Your task to perform on an android device: see sites visited before in the chrome app Image 0: 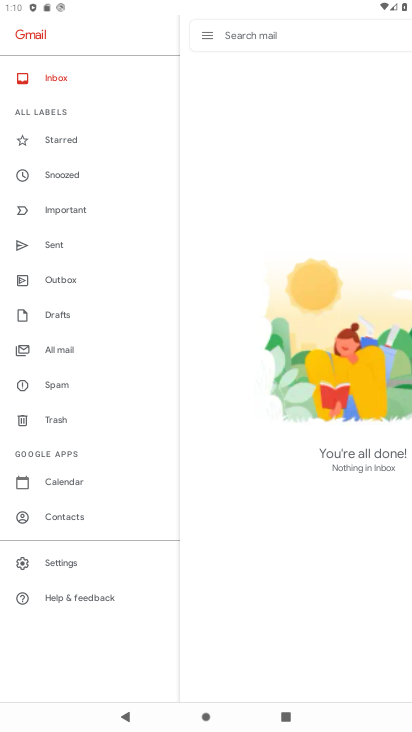
Step 0: press home button
Your task to perform on an android device: see sites visited before in the chrome app Image 1: 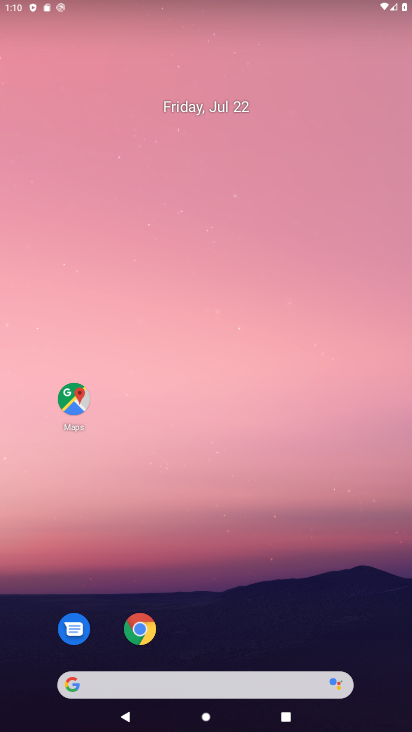
Step 1: drag from (259, 602) to (241, 51)
Your task to perform on an android device: see sites visited before in the chrome app Image 2: 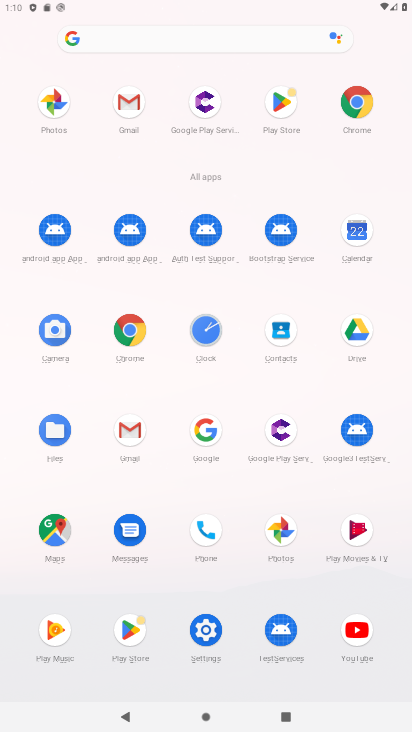
Step 2: click (124, 344)
Your task to perform on an android device: see sites visited before in the chrome app Image 3: 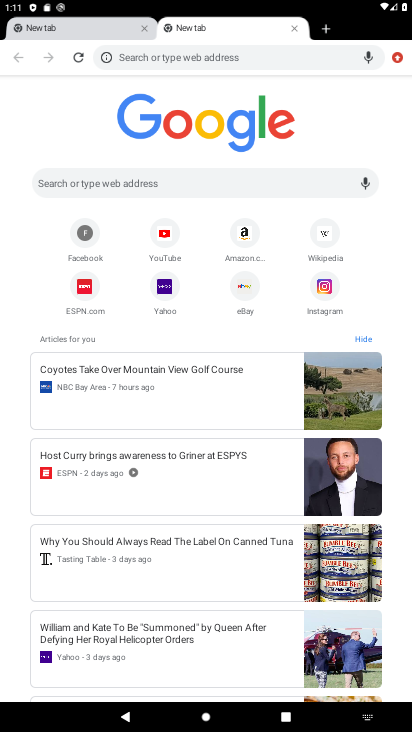
Step 3: click (403, 57)
Your task to perform on an android device: see sites visited before in the chrome app Image 4: 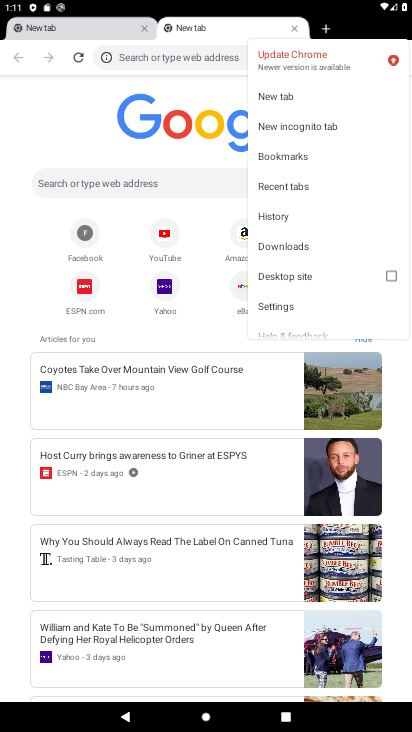
Step 4: task complete